Your task to perform on an android device: turn off notifications in google photos Image 0: 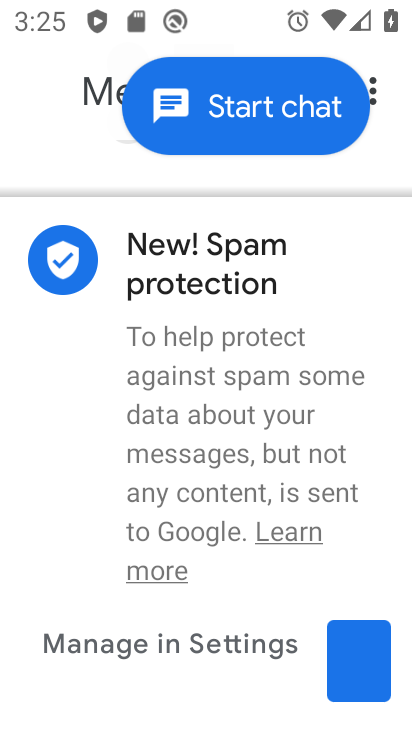
Step 0: press home button
Your task to perform on an android device: turn off notifications in google photos Image 1: 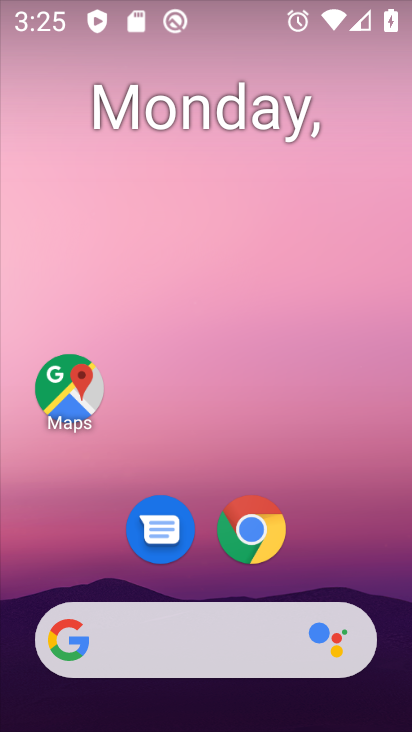
Step 1: drag from (190, 562) to (256, 6)
Your task to perform on an android device: turn off notifications in google photos Image 2: 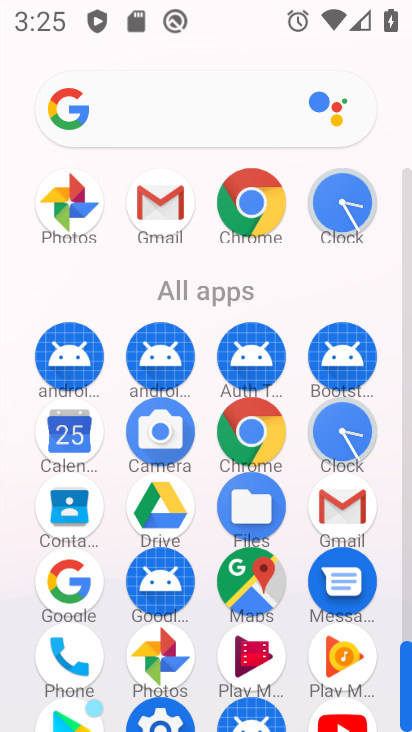
Step 2: click (156, 659)
Your task to perform on an android device: turn off notifications in google photos Image 3: 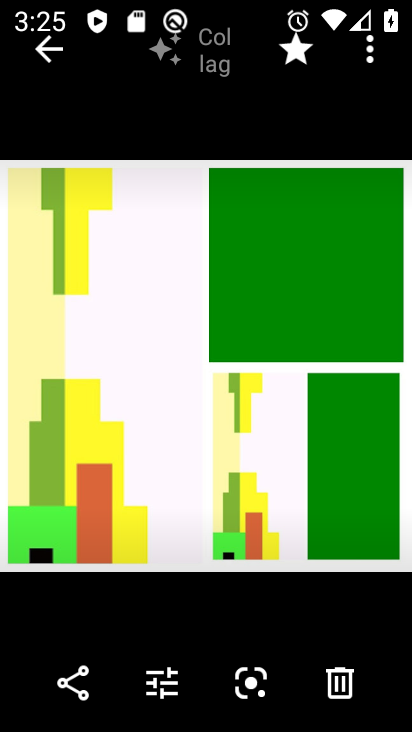
Step 3: click (40, 48)
Your task to perform on an android device: turn off notifications in google photos Image 4: 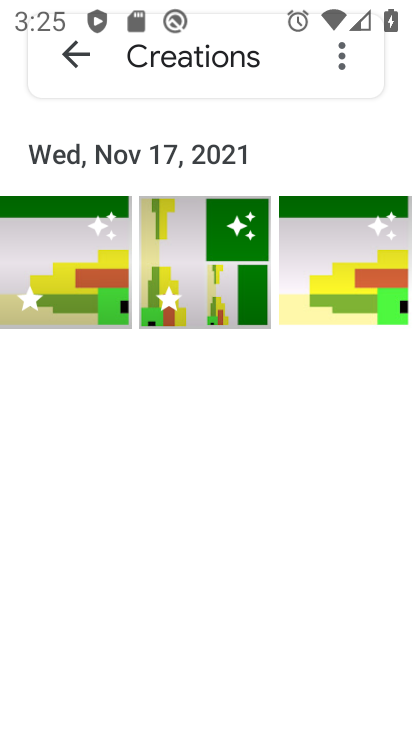
Step 4: click (86, 54)
Your task to perform on an android device: turn off notifications in google photos Image 5: 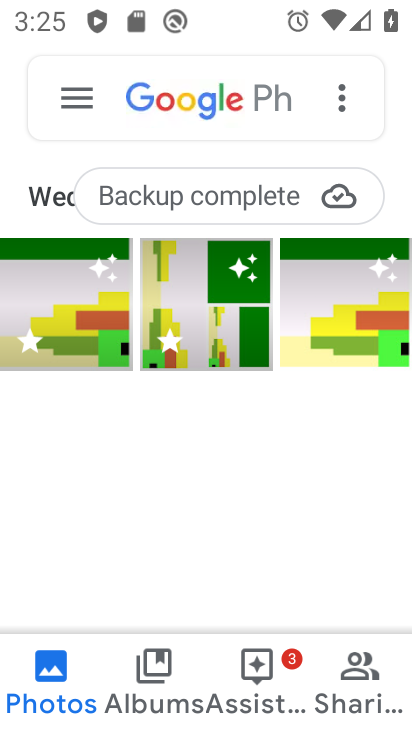
Step 5: click (69, 93)
Your task to perform on an android device: turn off notifications in google photos Image 6: 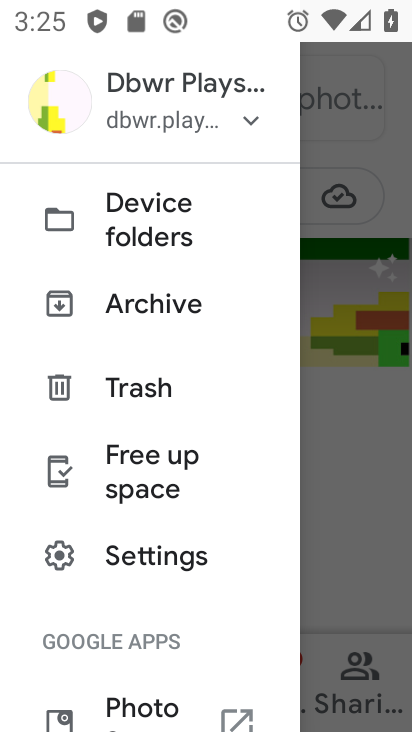
Step 6: click (148, 558)
Your task to perform on an android device: turn off notifications in google photos Image 7: 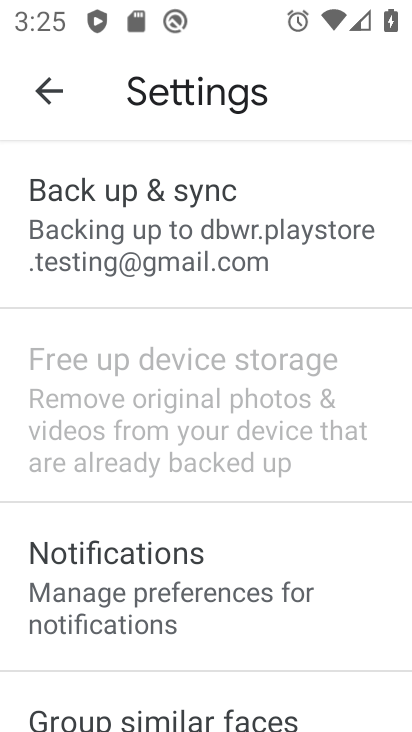
Step 7: click (152, 597)
Your task to perform on an android device: turn off notifications in google photos Image 8: 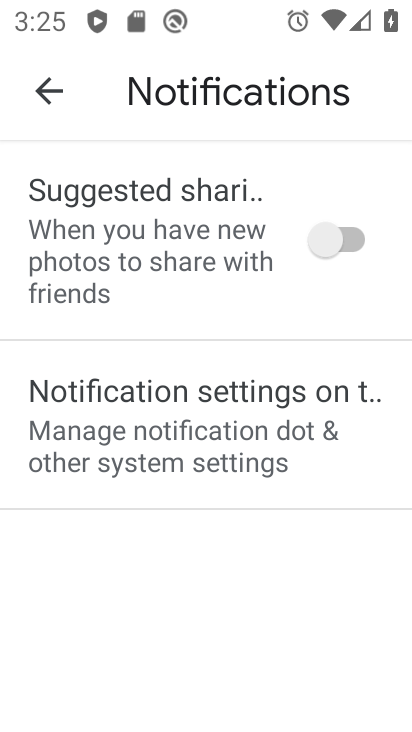
Step 8: click (169, 434)
Your task to perform on an android device: turn off notifications in google photos Image 9: 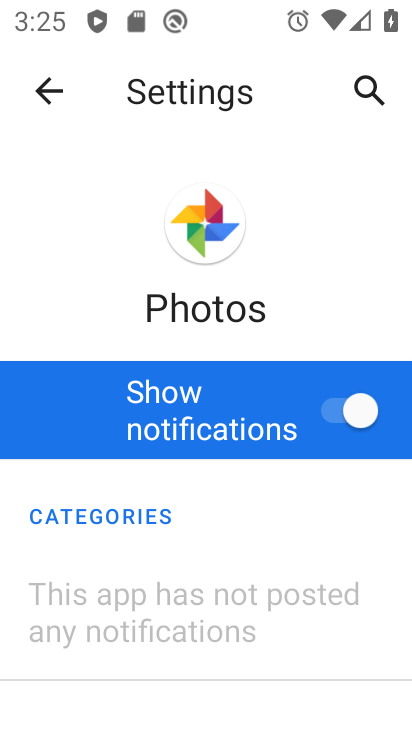
Step 9: click (274, 419)
Your task to perform on an android device: turn off notifications in google photos Image 10: 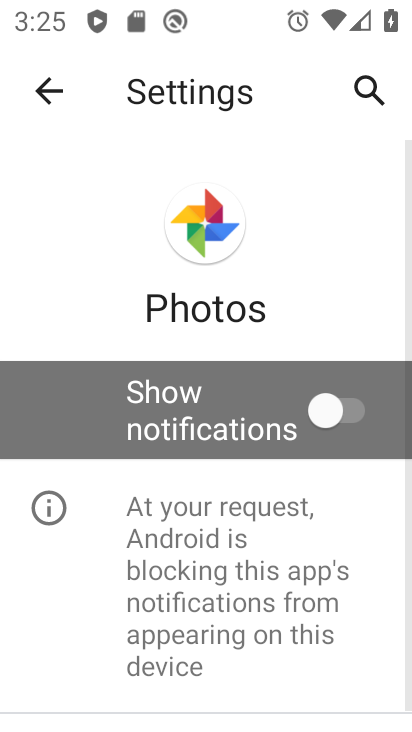
Step 10: task complete